Your task to perform on an android device: turn off picture-in-picture Image 0: 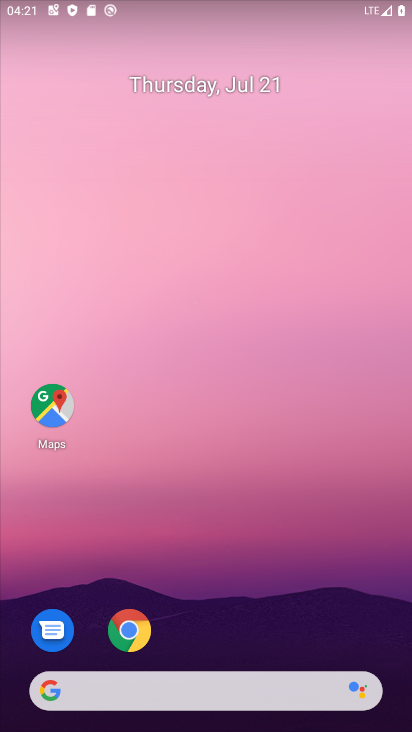
Step 0: click (123, 620)
Your task to perform on an android device: turn off picture-in-picture Image 1: 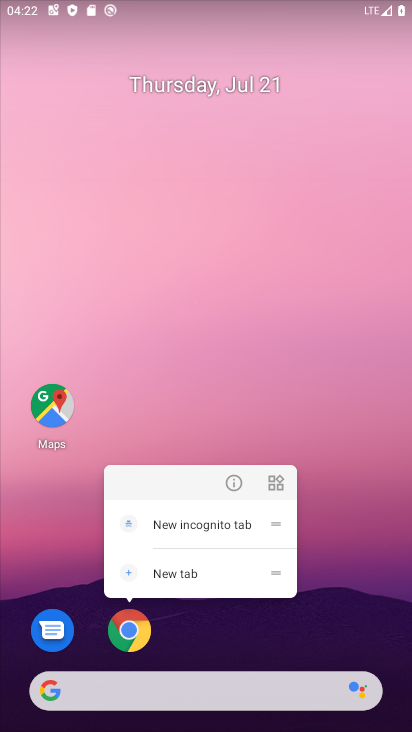
Step 1: click (227, 492)
Your task to perform on an android device: turn off picture-in-picture Image 2: 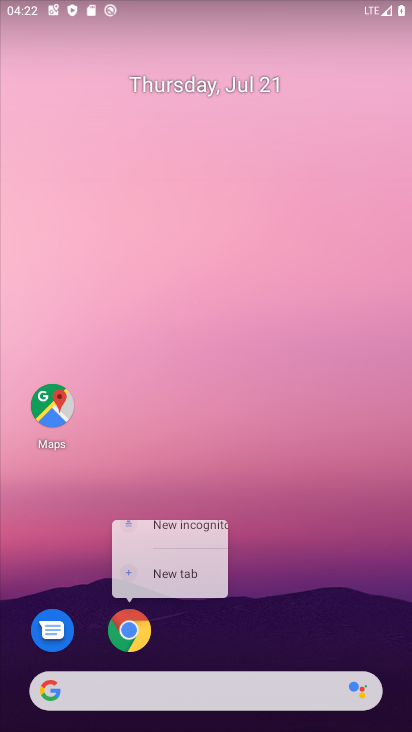
Step 2: click (230, 485)
Your task to perform on an android device: turn off picture-in-picture Image 3: 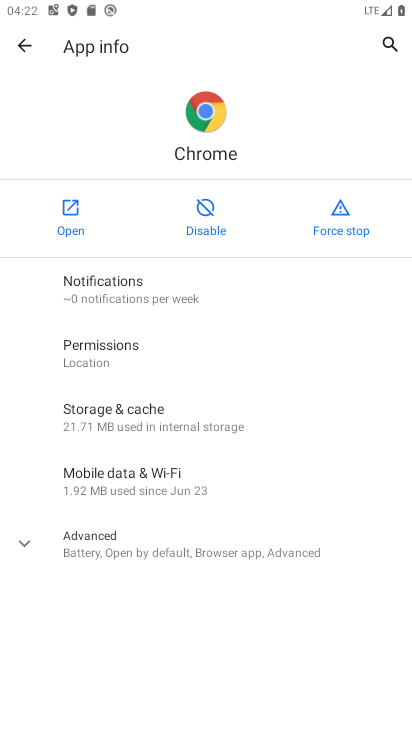
Step 3: click (196, 554)
Your task to perform on an android device: turn off picture-in-picture Image 4: 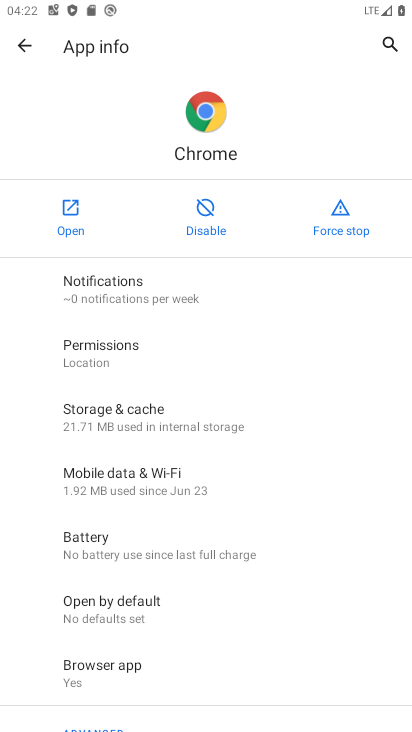
Step 4: drag from (121, 678) to (210, 112)
Your task to perform on an android device: turn off picture-in-picture Image 5: 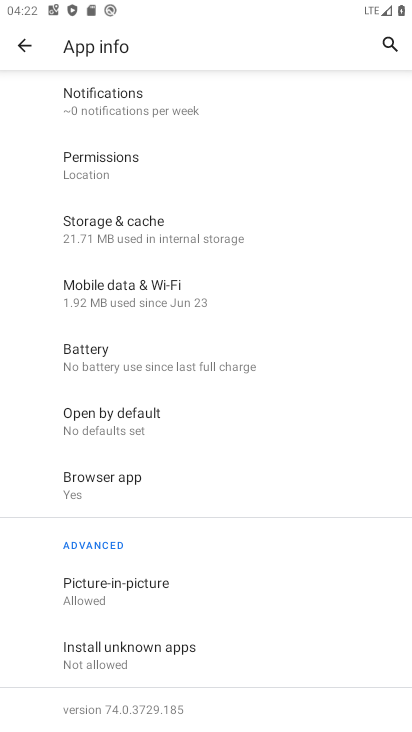
Step 5: click (220, 598)
Your task to perform on an android device: turn off picture-in-picture Image 6: 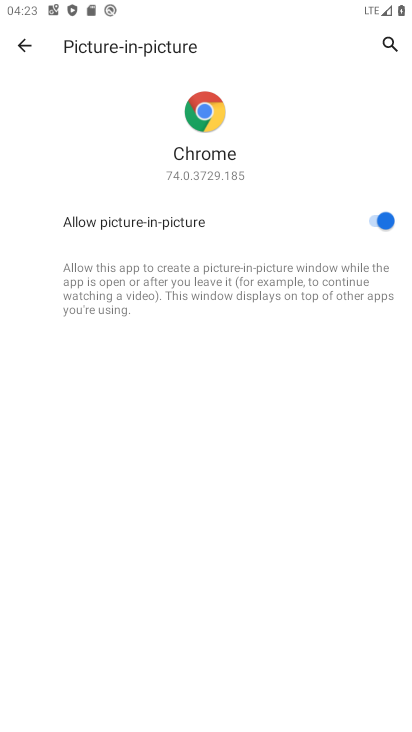
Step 6: click (377, 220)
Your task to perform on an android device: turn off picture-in-picture Image 7: 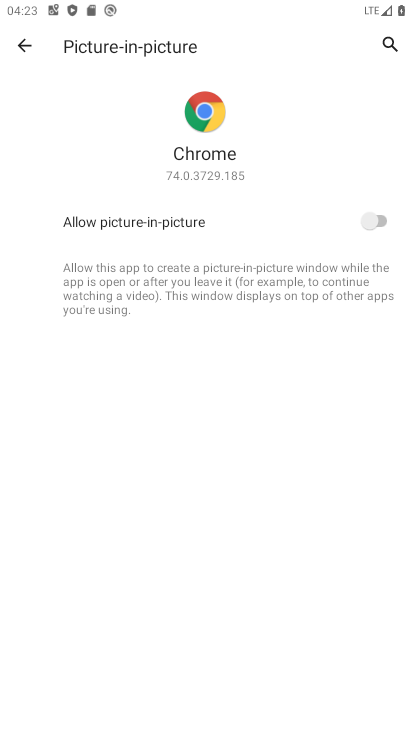
Step 7: task complete